Your task to perform on an android device: see tabs open on other devices in the chrome app Image 0: 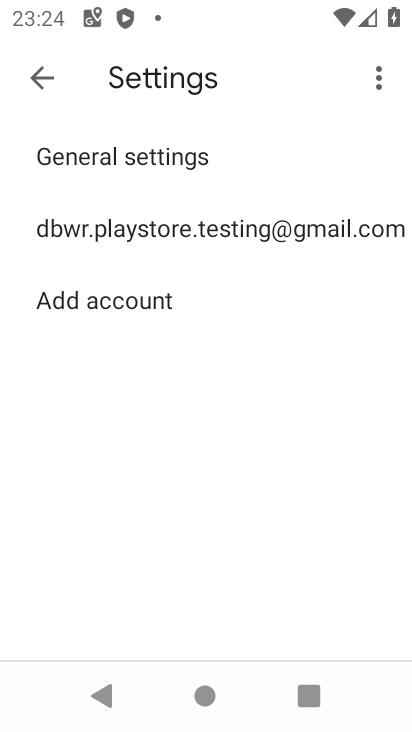
Step 0: press home button
Your task to perform on an android device: see tabs open on other devices in the chrome app Image 1: 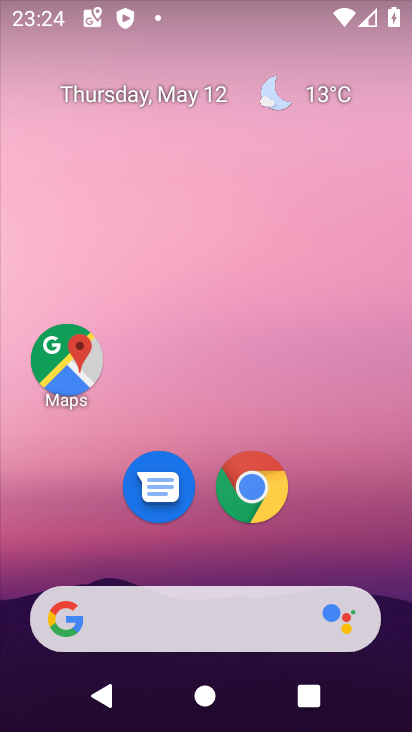
Step 1: click (250, 492)
Your task to perform on an android device: see tabs open on other devices in the chrome app Image 2: 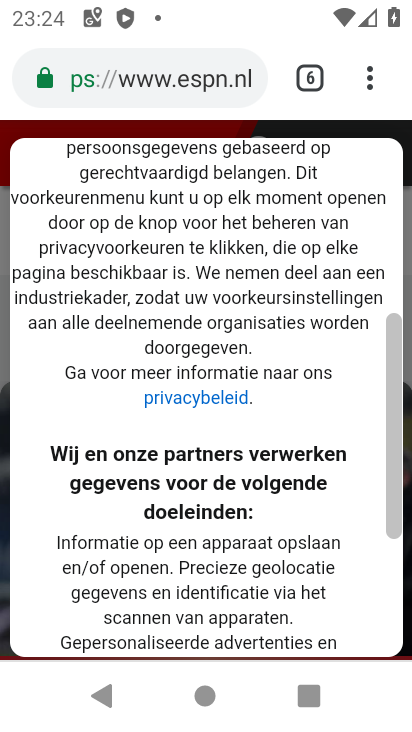
Step 2: click (383, 68)
Your task to perform on an android device: see tabs open on other devices in the chrome app Image 3: 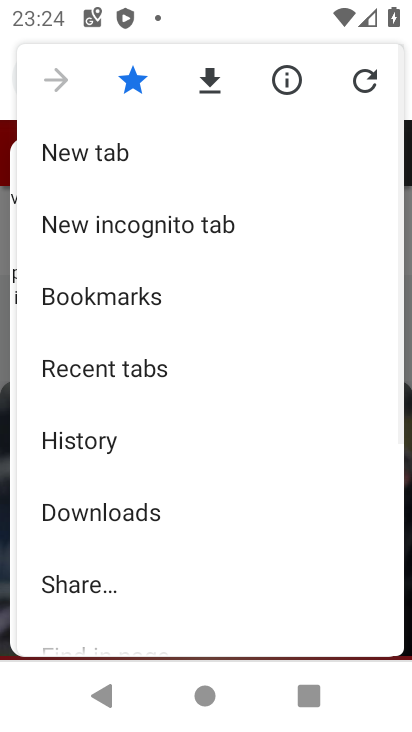
Step 3: drag from (127, 514) to (186, 276)
Your task to perform on an android device: see tabs open on other devices in the chrome app Image 4: 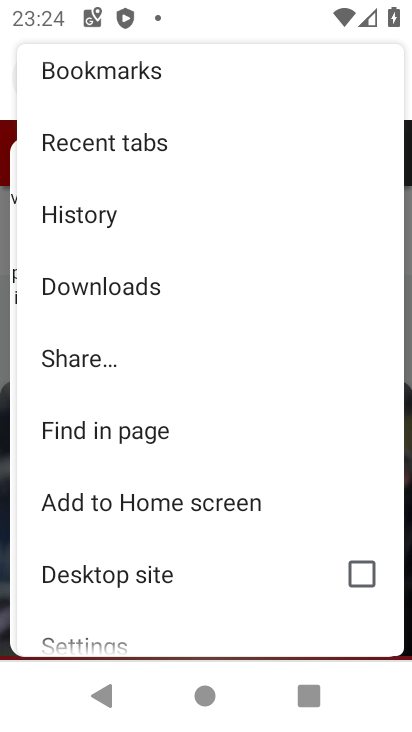
Step 4: click (149, 161)
Your task to perform on an android device: see tabs open on other devices in the chrome app Image 5: 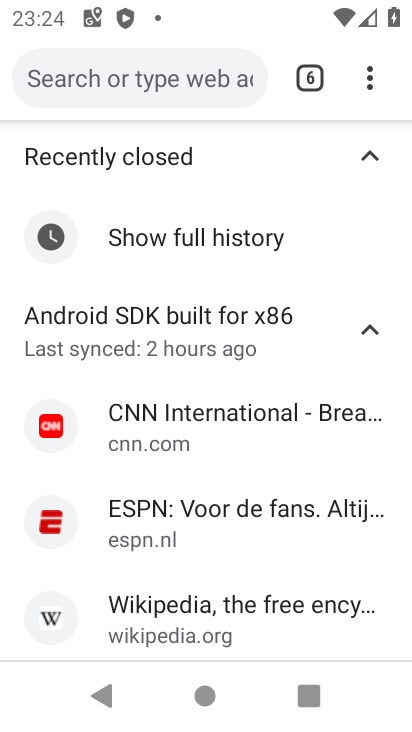
Step 5: task complete